Your task to perform on an android device: Open settings on Google Maps Image 0: 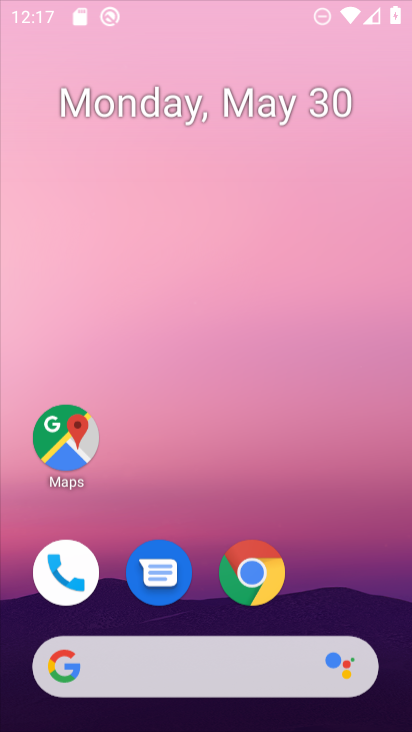
Step 0: press home button
Your task to perform on an android device: Open settings on Google Maps Image 1: 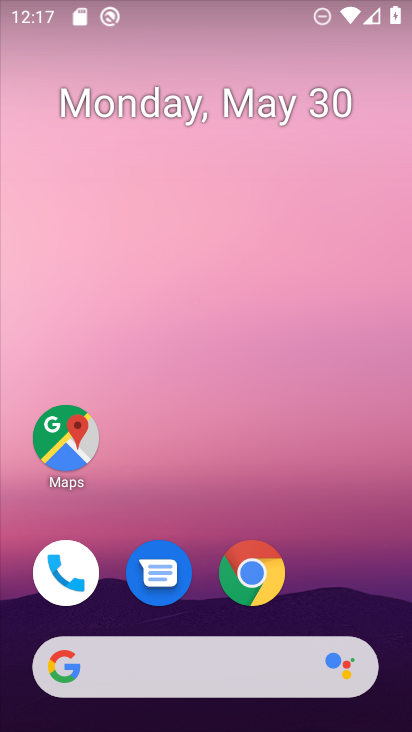
Step 1: click (66, 458)
Your task to perform on an android device: Open settings on Google Maps Image 2: 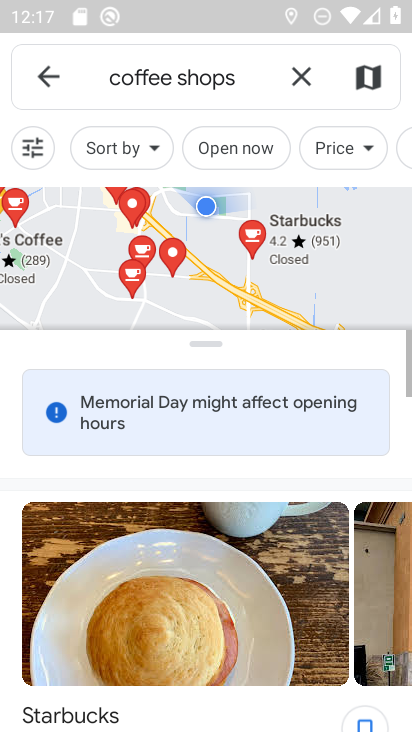
Step 2: click (303, 77)
Your task to perform on an android device: Open settings on Google Maps Image 3: 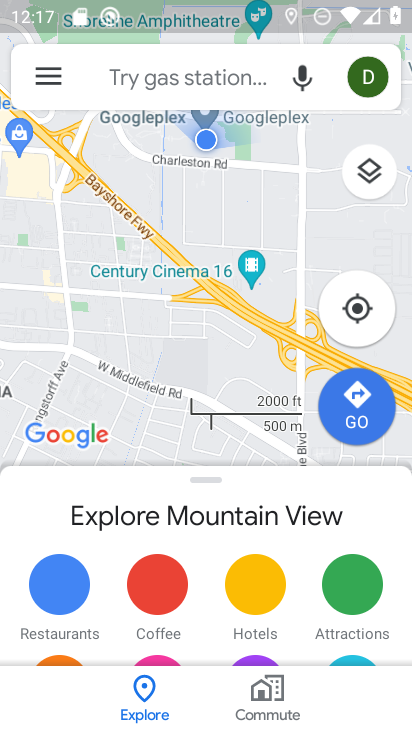
Step 3: click (51, 75)
Your task to perform on an android device: Open settings on Google Maps Image 4: 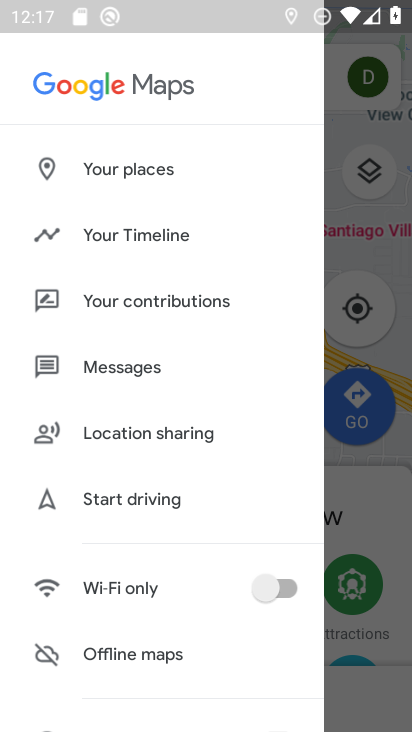
Step 4: drag from (236, 647) to (205, 182)
Your task to perform on an android device: Open settings on Google Maps Image 5: 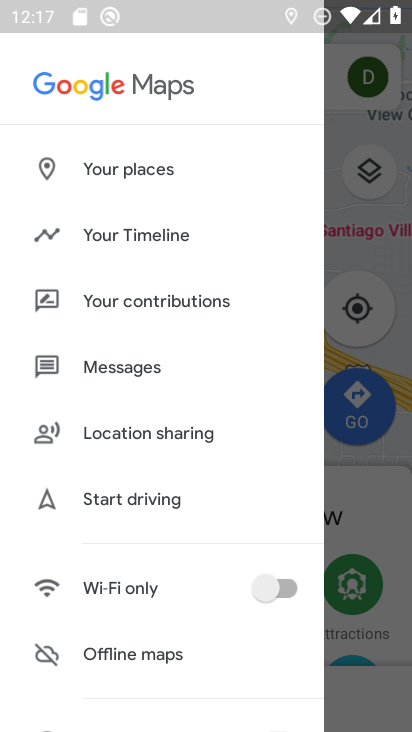
Step 5: drag from (227, 501) to (231, 0)
Your task to perform on an android device: Open settings on Google Maps Image 6: 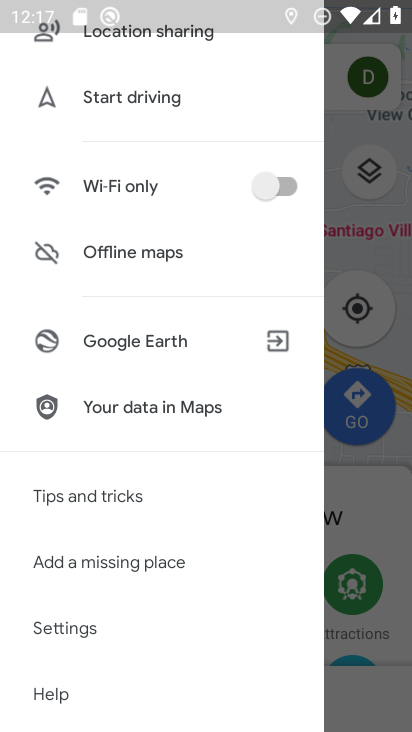
Step 6: click (59, 628)
Your task to perform on an android device: Open settings on Google Maps Image 7: 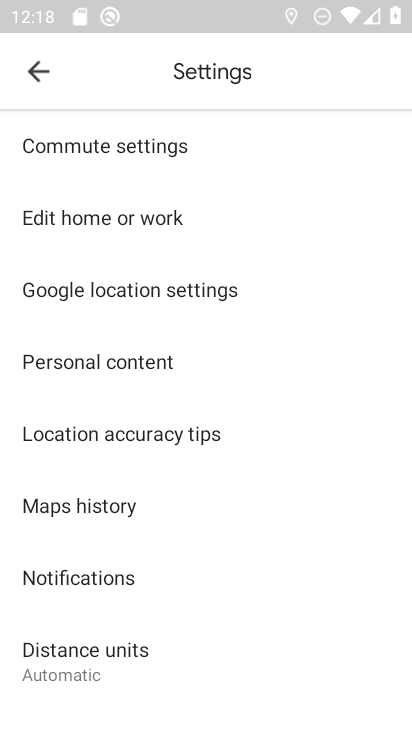
Step 7: task complete